Your task to perform on an android device: Go to Amazon Image 0: 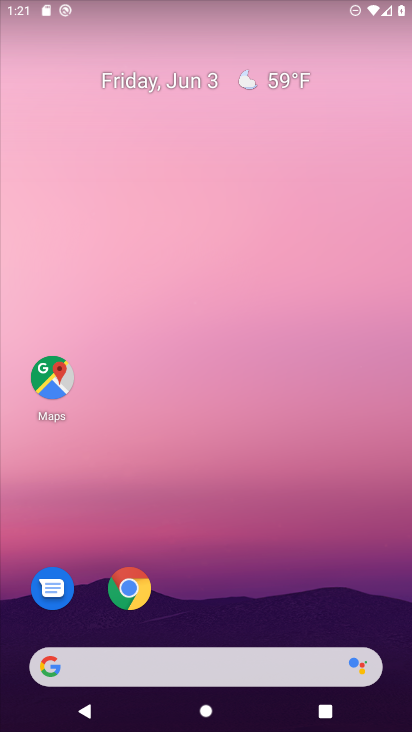
Step 0: drag from (268, 573) to (202, 0)
Your task to perform on an android device: Go to Amazon Image 1: 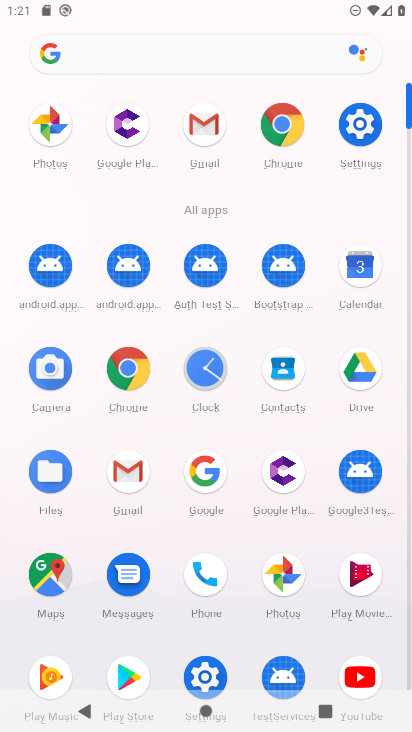
Step 1: click (281, 122)
Your task to perform on an android device: Go to Amazon Image 2: 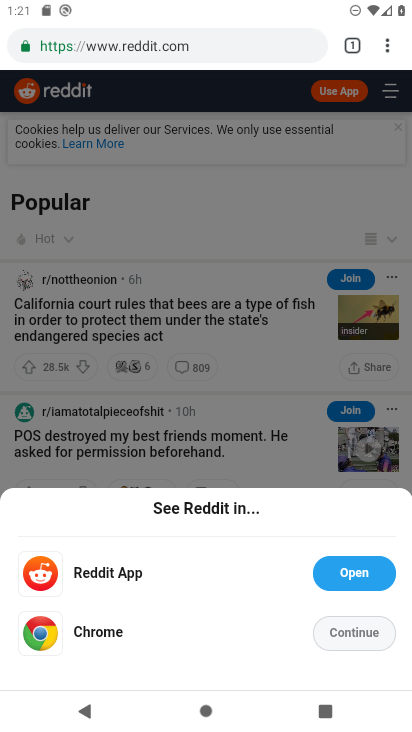
Step 2: click (216, 40)
Your task to perform on an android device: Go to Amazon Image 3: 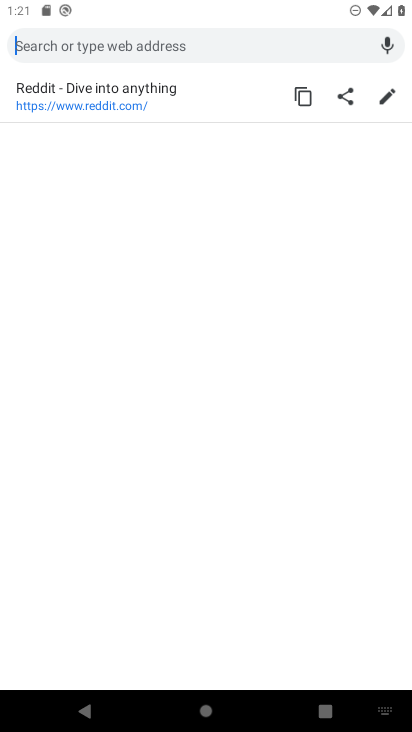
Step 3: type "Amazon"
Your task to perform on an android device: Go to Amazon Image 4: 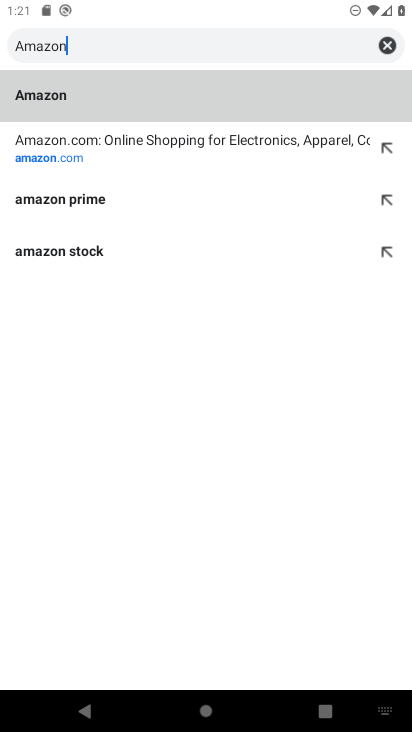
Step 4: type ""
Your task to perform on an android device: Go to Amazon Image 5: 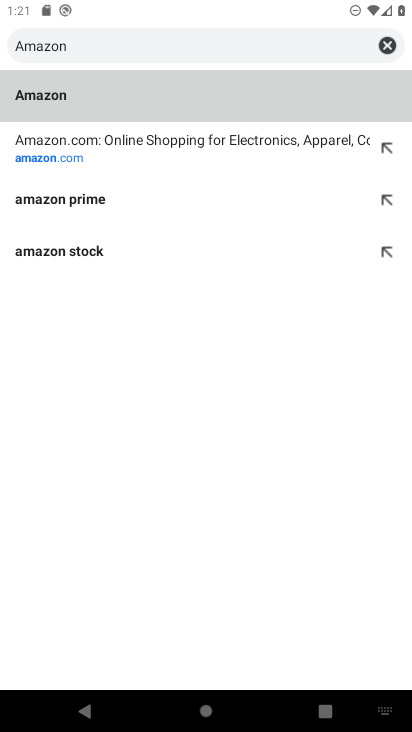
Step 5: click (56, 149)
Your task to perform on an android device: Go to Amazon Image 6: 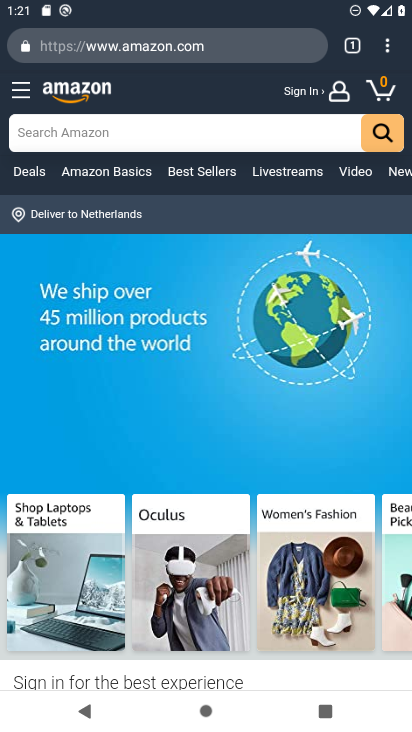
Step 6: task complete